Your task to perform on an android device: Go to Reddit.com Image 0: 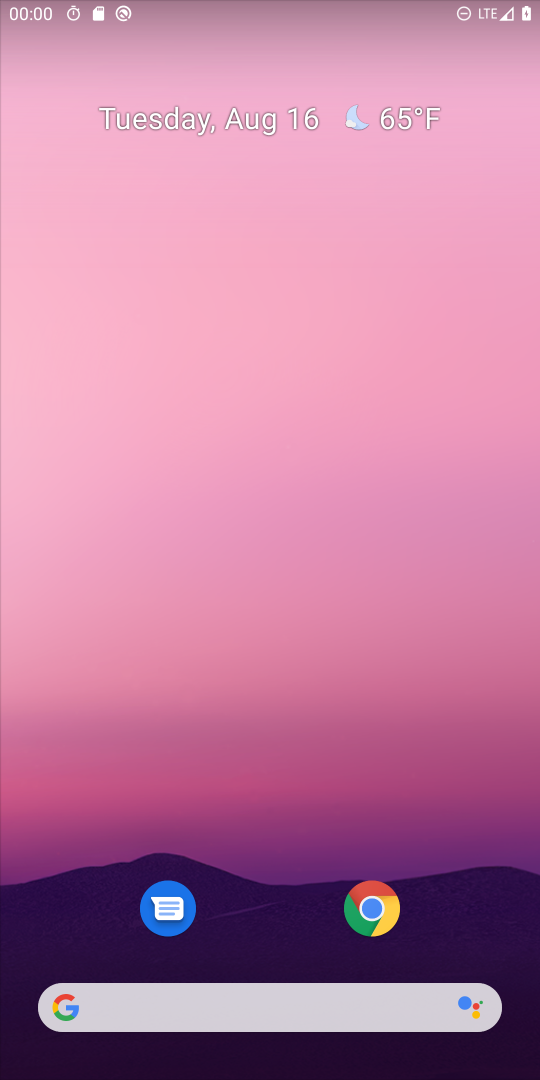
Step 0: click (276, 1018)
Your task to perform on an android device: Go to Reddit.com Image 1: 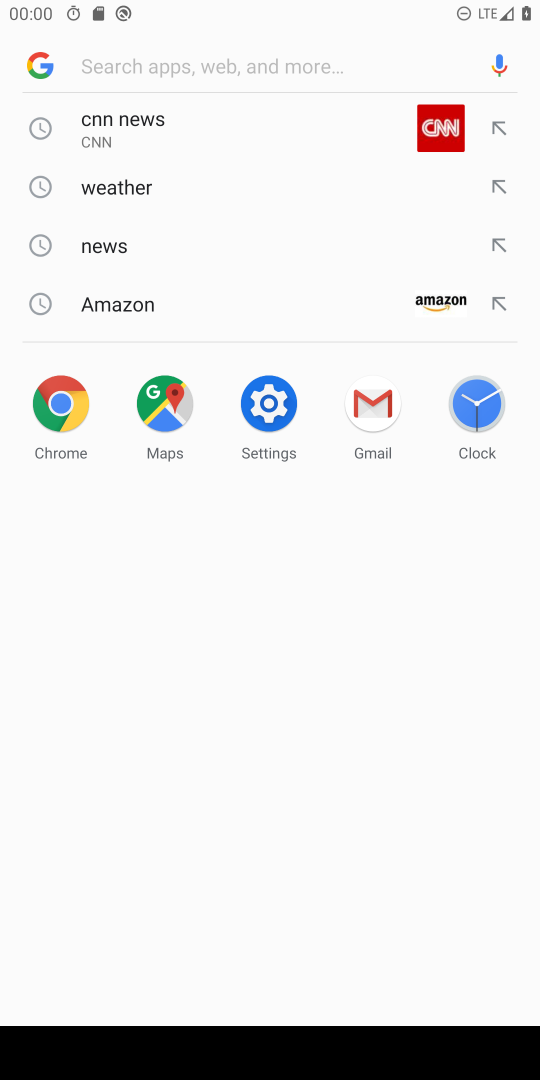
Step 1: type "reddit"
Your task to perform on an android device: Go to Reddit.com Image 2: 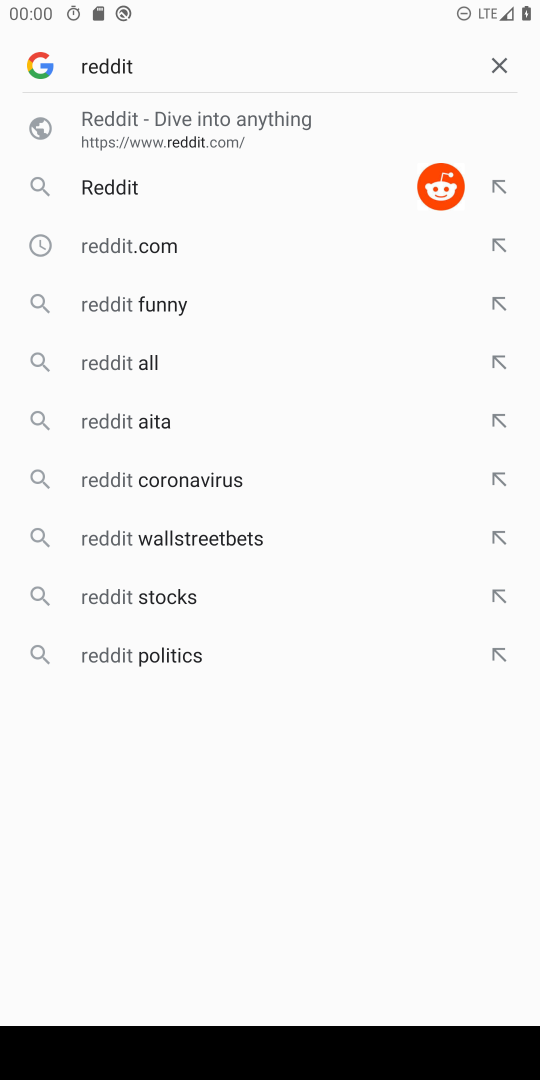
Step 2: click (245, 194)
Your task to perform on an android device: Go to Reddit.com Image 3: 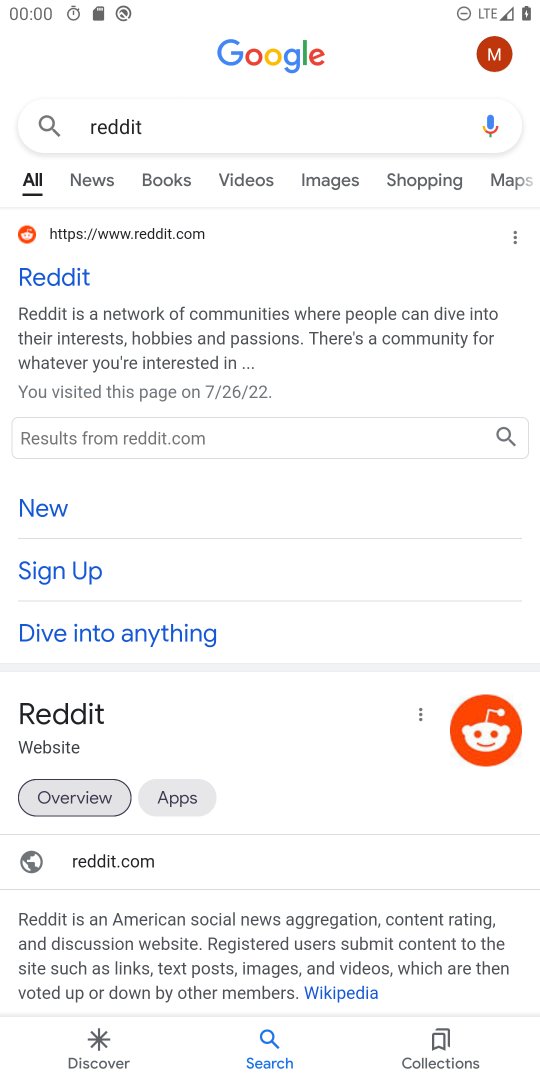
Step 3: click (57, 285)
Your task to perform on an android device: Go to Reddit.com Image 4: 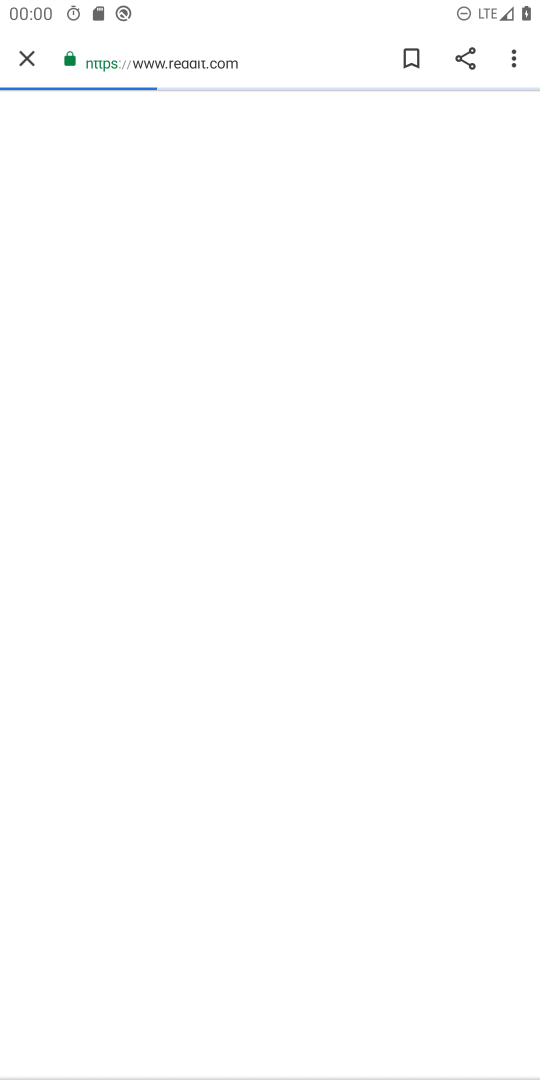
Step 4: click (52, 282)
Your task to perform on an android device: Go to Reddit.com Image 5: 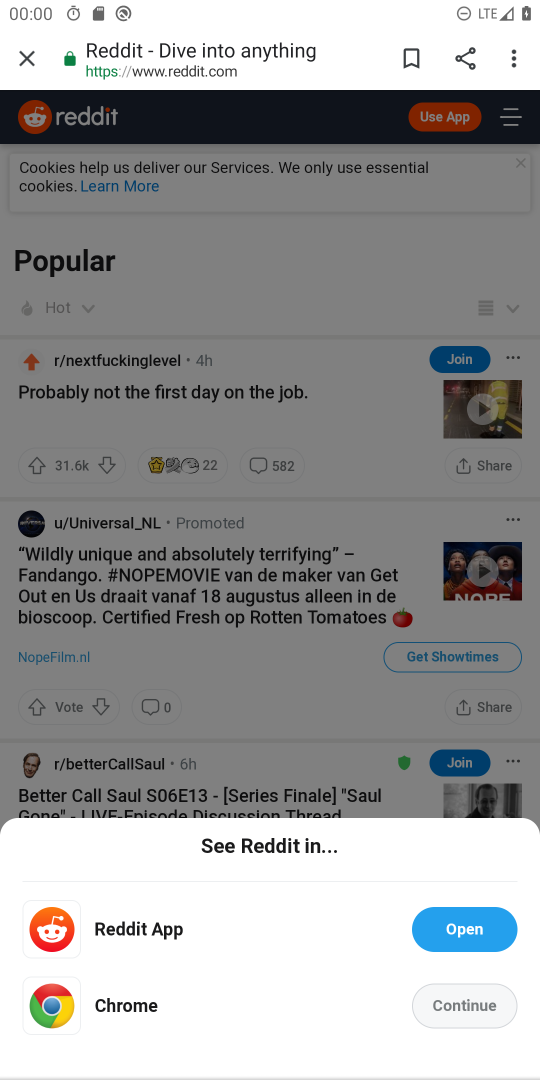
Step 5: task complete